Your task to perform on an android device: set the stopwatch Image 0: 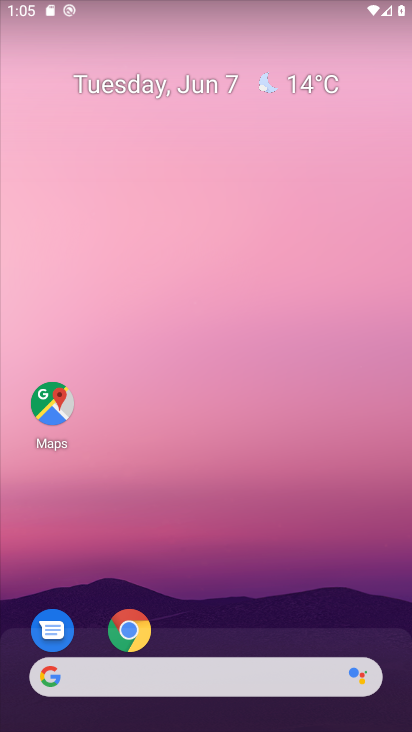
Step 0: drag from (240, 578) to (264, 287)
Your task to perform on an android device: set the stopwatch Image 1: 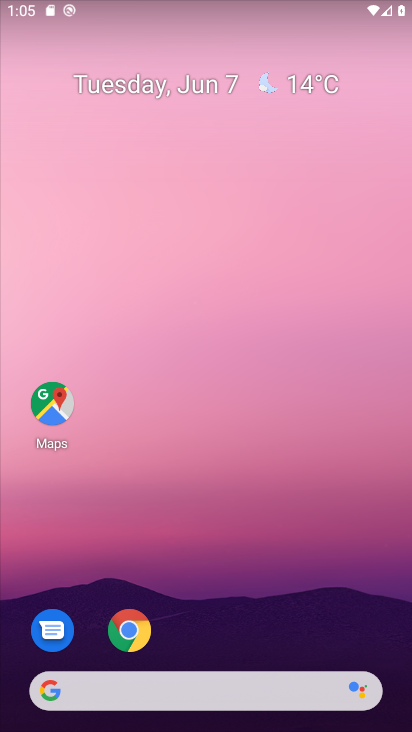
Step 1: drag from (194, 655) to (251, 173)
Your task to perform on an android device: set the stopwatch Image 2: 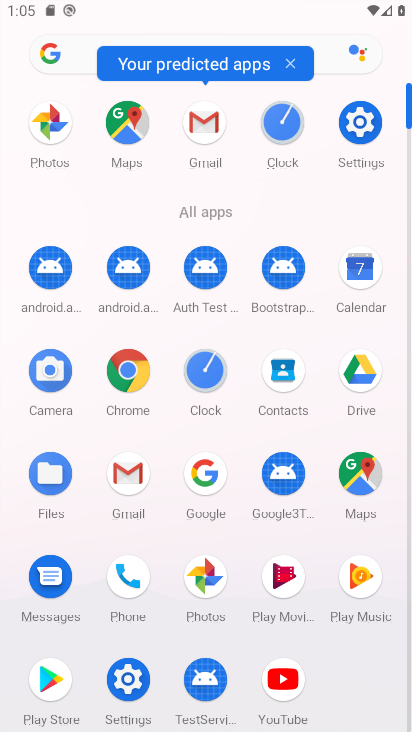
Step 2: click (208, 372)
Your task to perform on an android device: set the stopwatch Image 3: 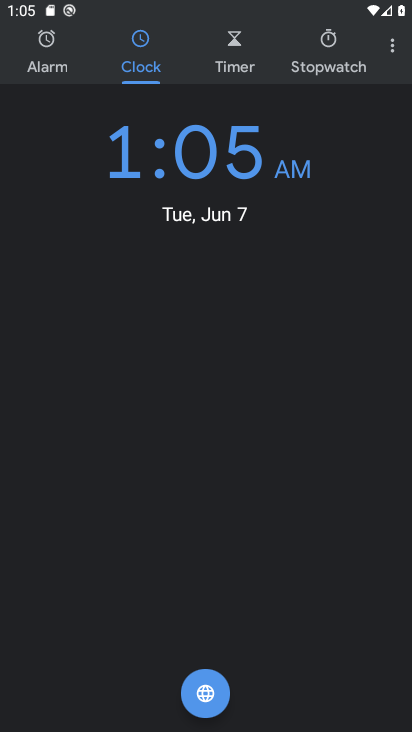
Step 3: click (299, 60)
Your task to perform on an android device: set the stopwatch Image 4: 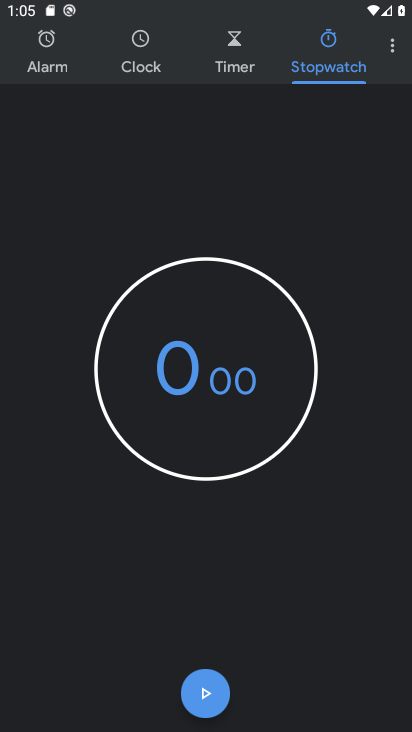
Step 4: click (200, 695)
Your task to perform on an android device: set the stopwatch Image 5: 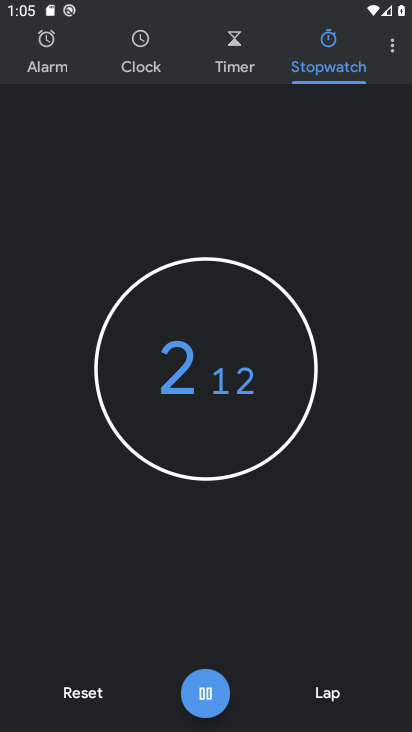
Step 5: task complete